Your task to perform on an android device: Is it going to rain today? Image 0: 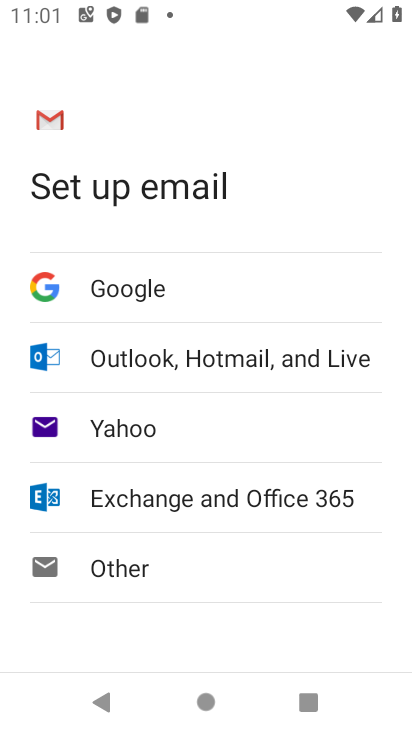
Step 0: press home button
Your task to perform on an android device: Is it going to rain today? Image 1: 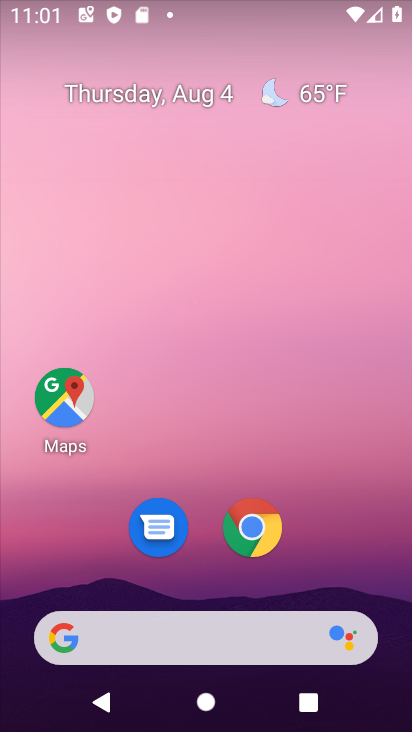
Step 1: drag from (252, 669) to (302, 193)
Your task to perform on an android device: Is it going to rain today? Image 2: 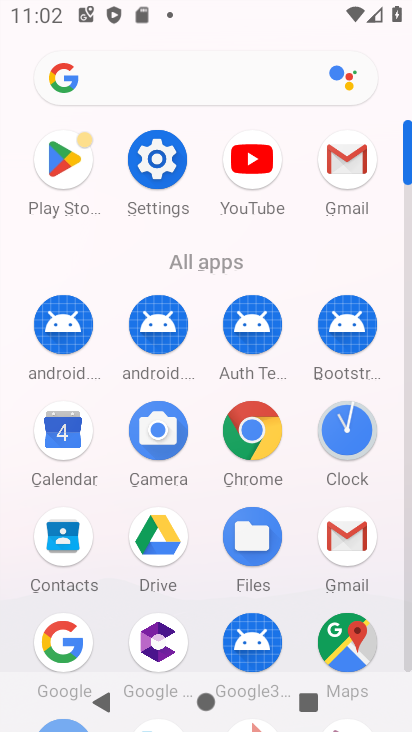
Step 2: click (138, 84)
Your task to perform on an android device: Is it going to rain today? Image 3: 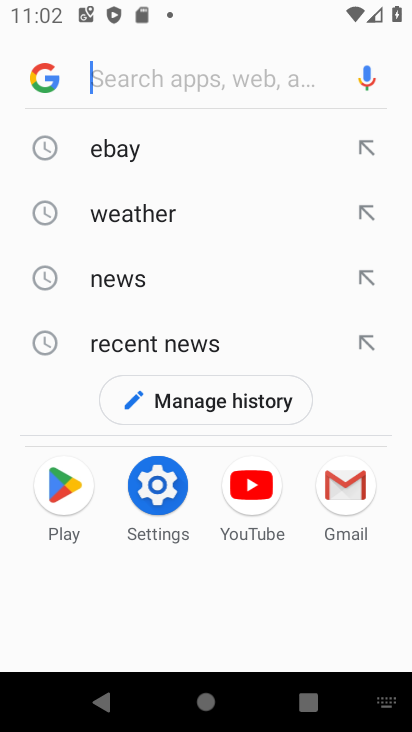
Step 3: type "Is it going to rain today?"
Your task to perform on an android device: Is it going to rain today? Image 4: 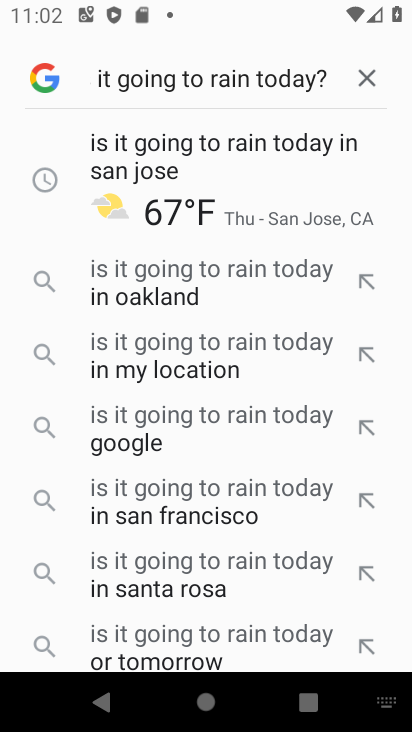
Step 4: press enter
Your task to perform on an android device: Is it going to rain today? Image 5: 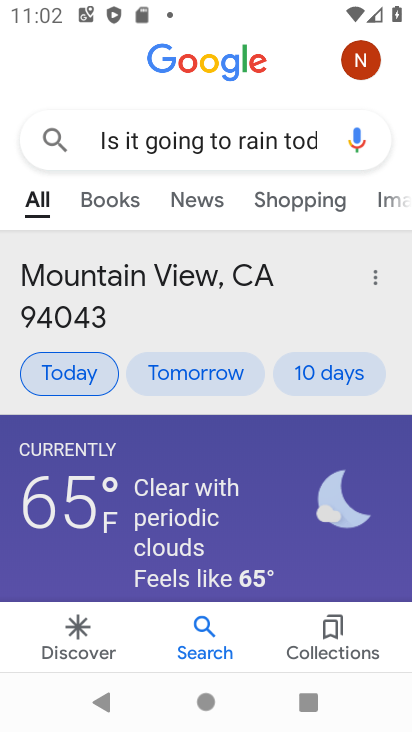
Step 5: task complete